Your task to perform on an android device: open app "Truecaller" Image 0: 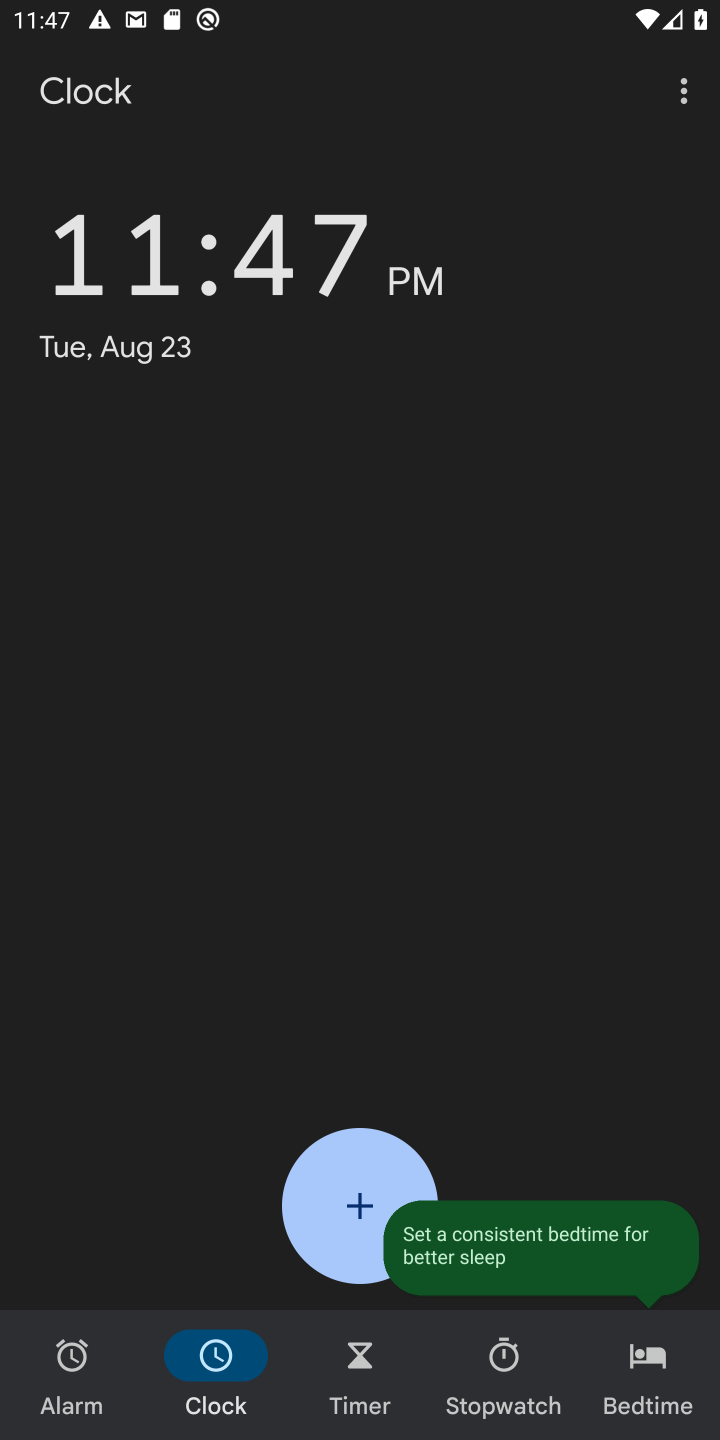
Step 0: press home button
Your task to perform on an android device: open app "Truecaller" Image 1: 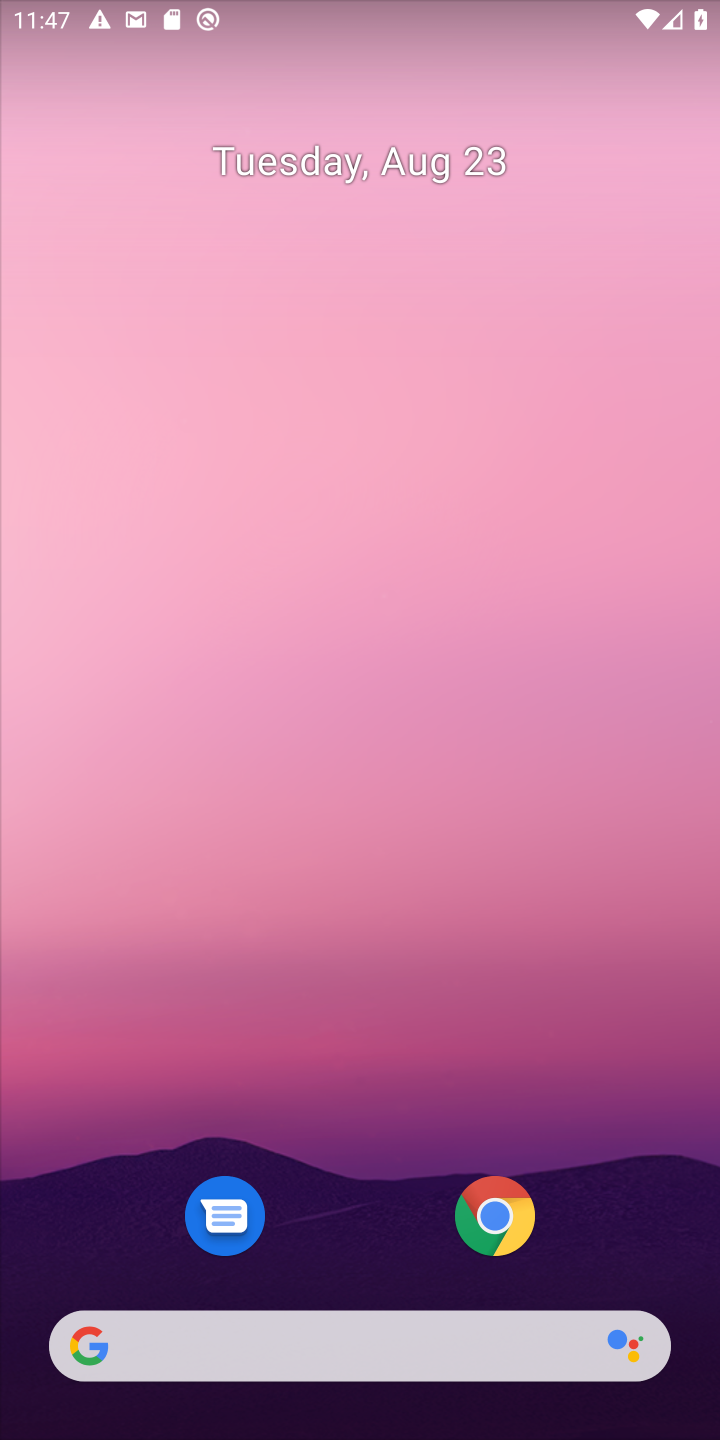
Step 1: drag from (258, 1342) to (406, 79)
Your task to perform on an android device: open app "Truecaller" Image 2: 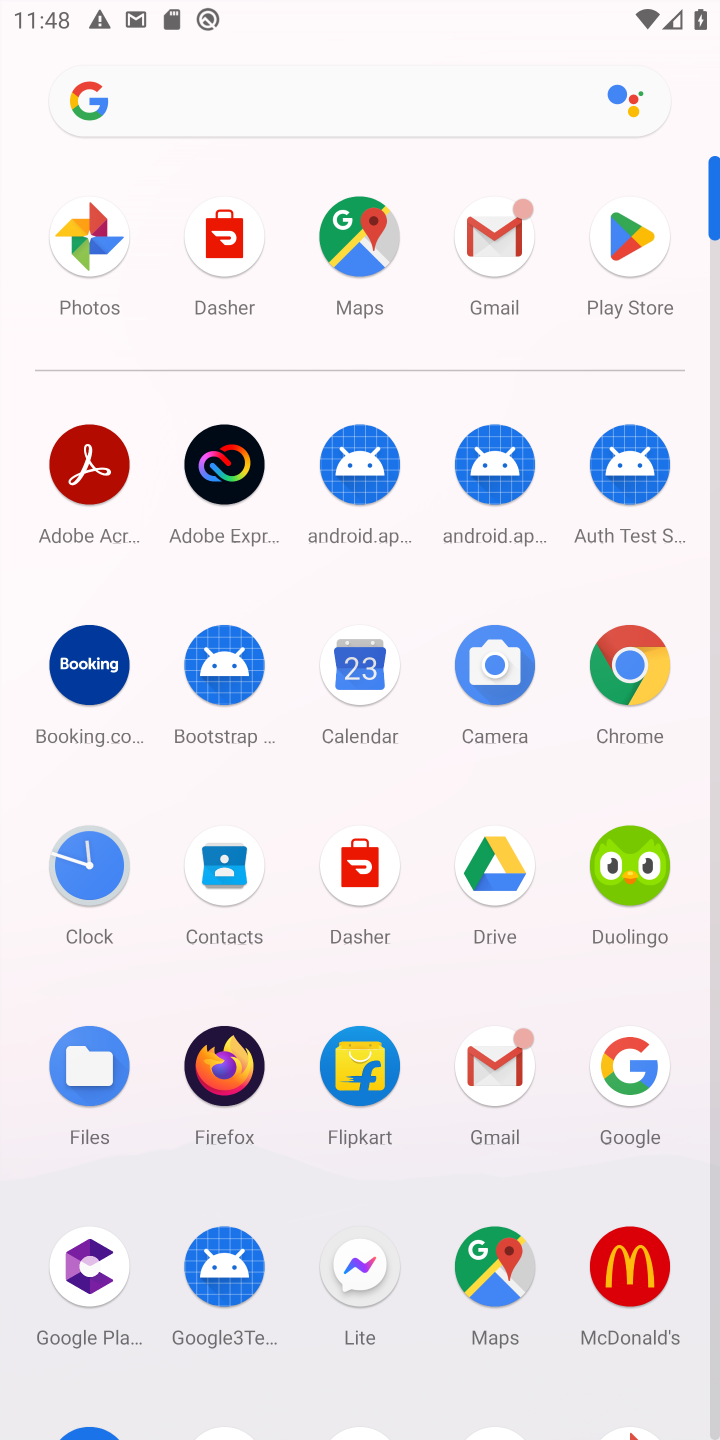
Step 2: click (633, 249)
Your task to perform on an android device: open app "Truecaller" Image 3: 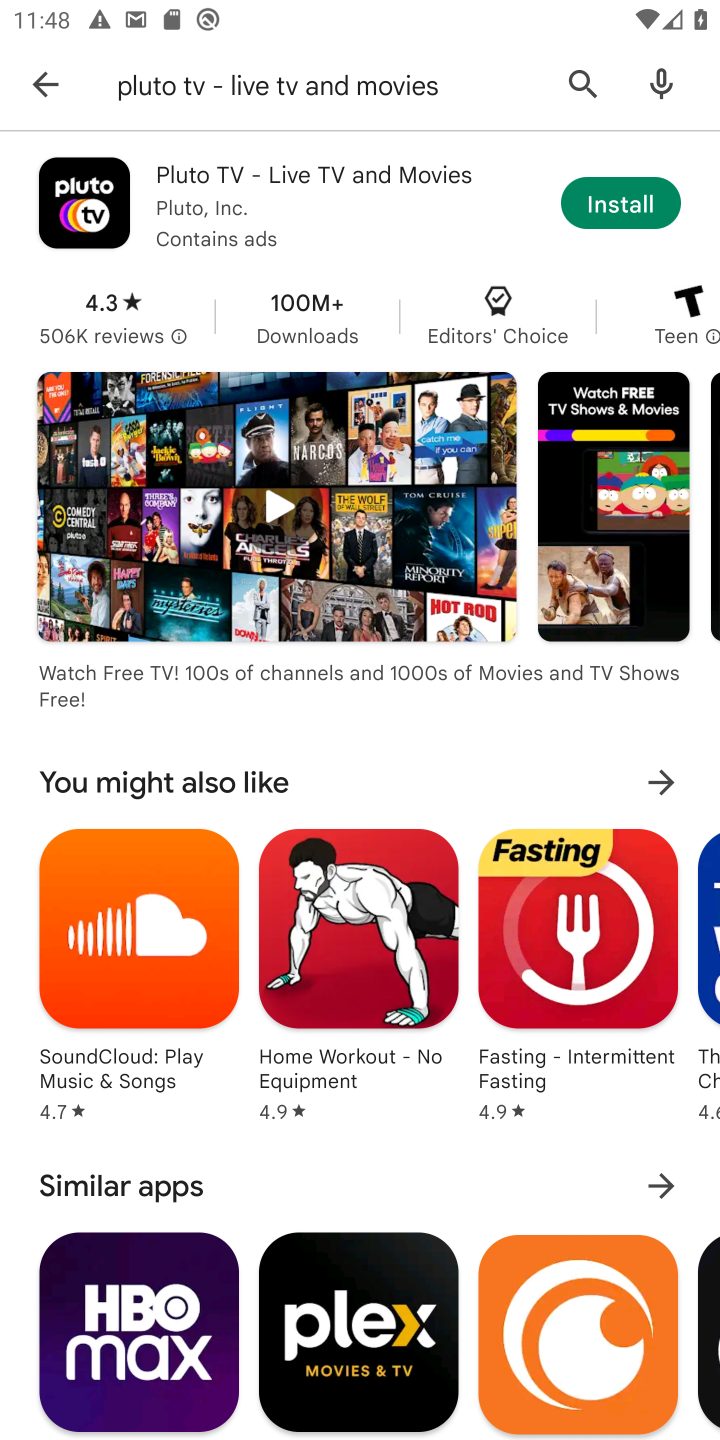
Step 3: press back button
Your task to perform on an android device: open app "Truecaller" Image 4: 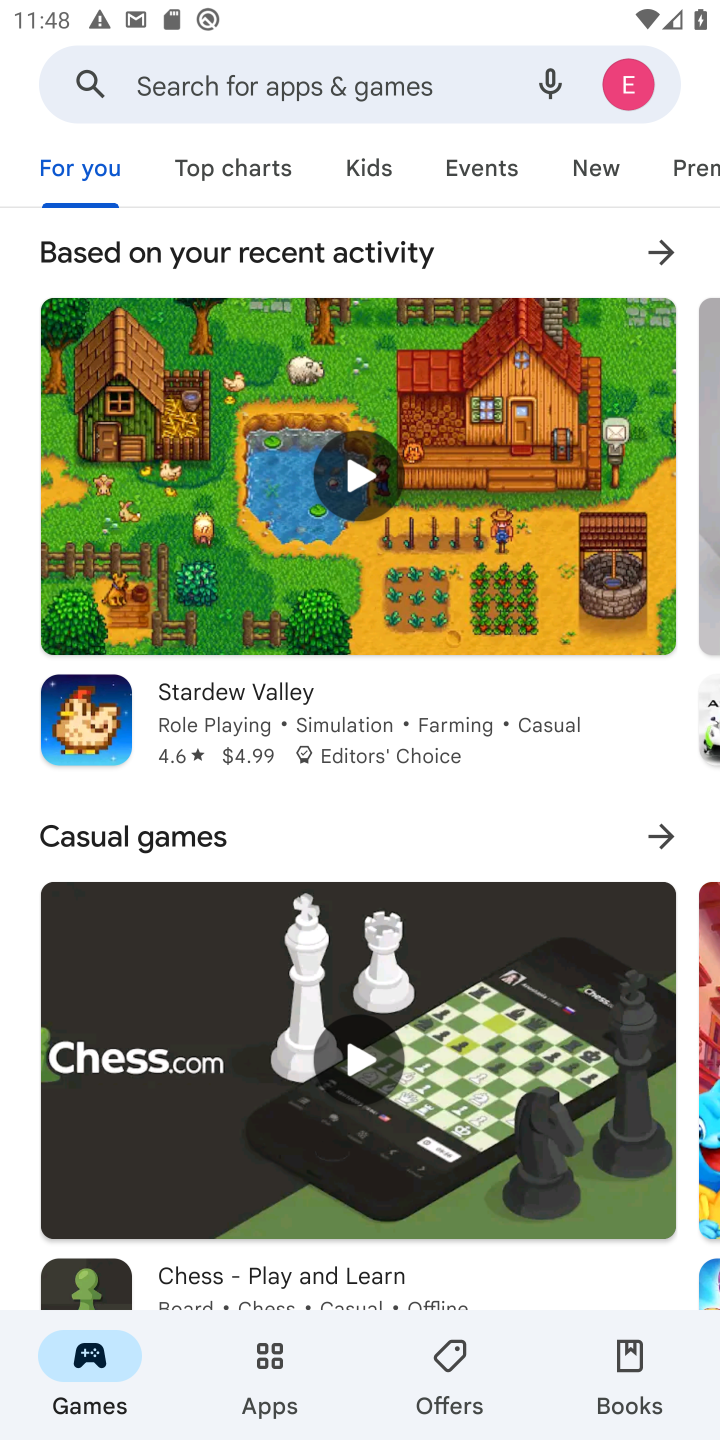
Step 4: click (405, 93)
Your task to perform on an android device: open app "Truecaller" Image 5: 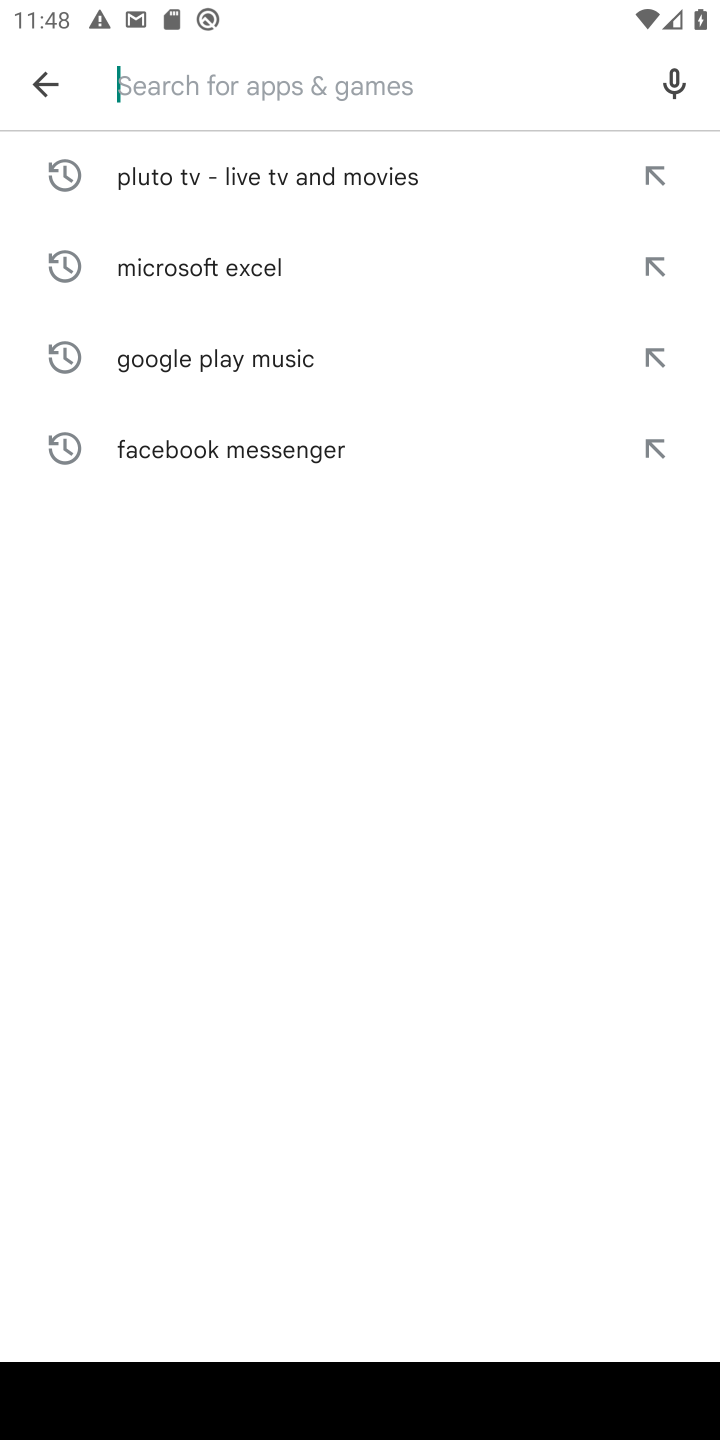
Step 5: type "Truecaller"
Your task to perform on an android device: open app "Truecaller" Image 6: 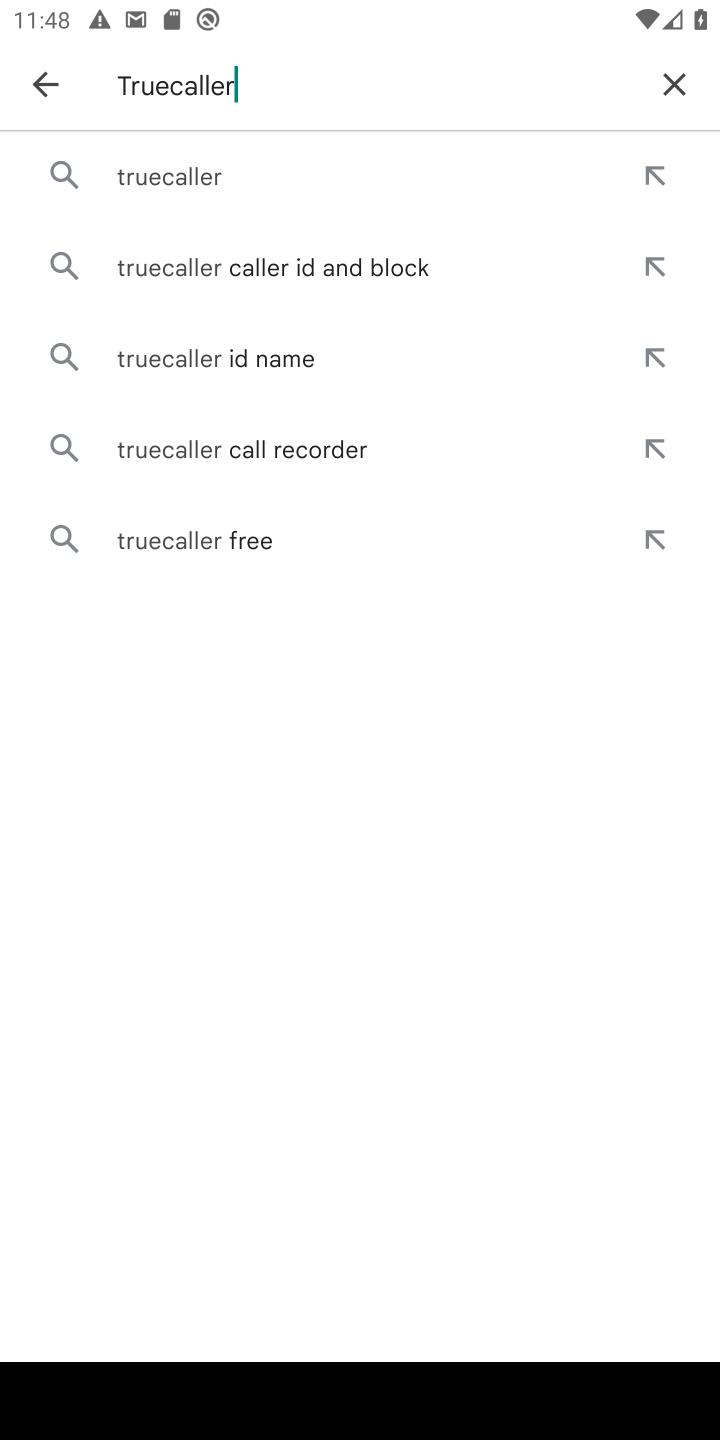
Step 6: click (181, 179)
Your task to perform on an android device: open app "Truecaller" Image 7: 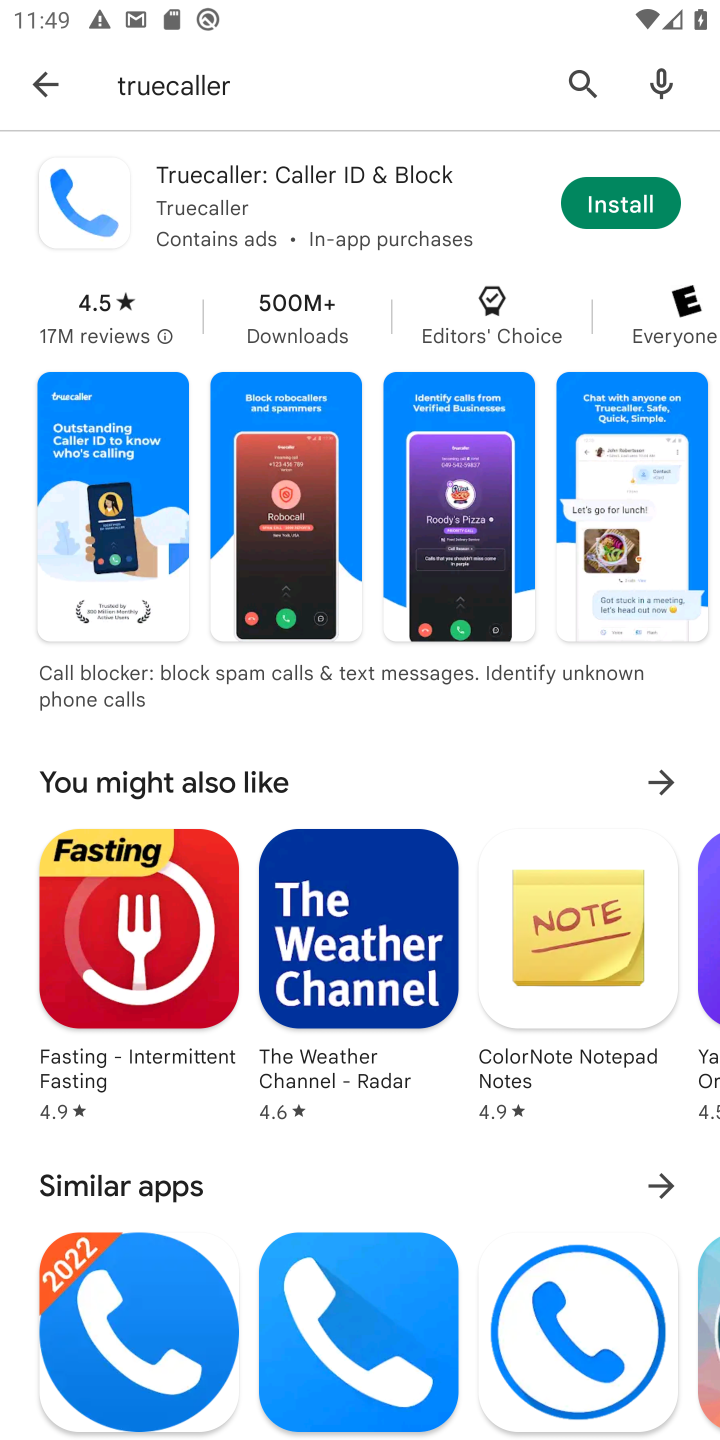
Step 7: task complete